Your task to perform on an android device: turn on improve location accuracy Image 0: 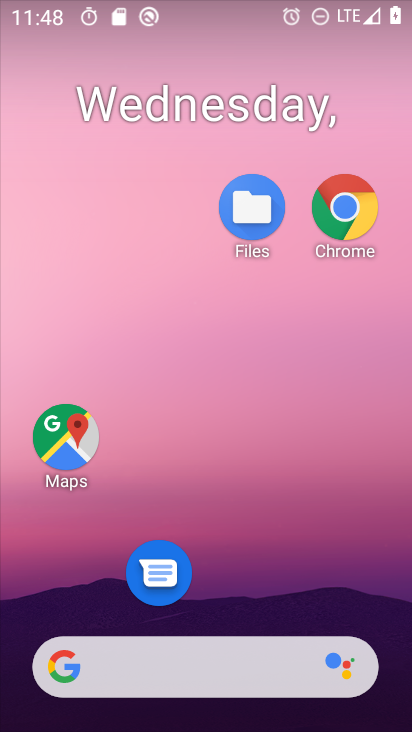
Step 0: drag from (312, 631) to (296, 122)
Your task to perform on an android device: turn on improve location accuracy Image 1: 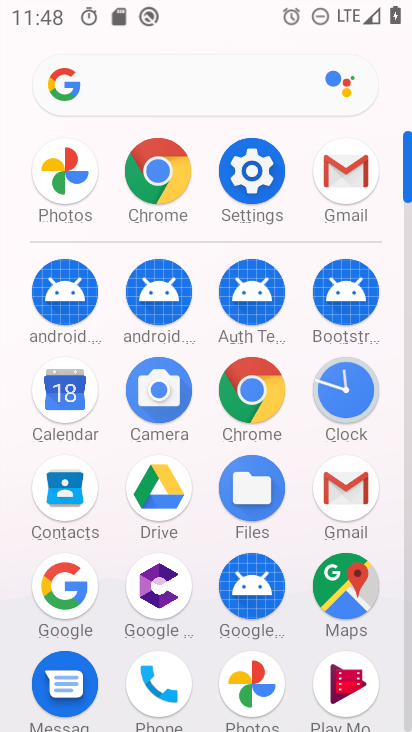
Step 1: click (249, 172)
Your task to perform on an android device: turn on improve location accuracy Image 2: 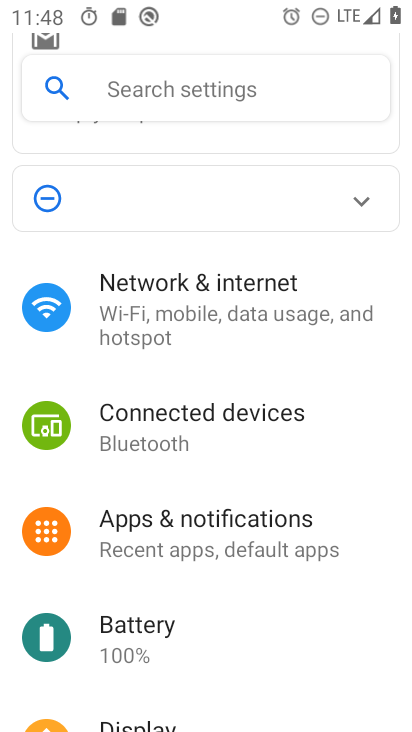
Step 2: drag from (225, 607) to (308, 0)
Your task to perform on an android device: turn on improve location accuracy Image 3: 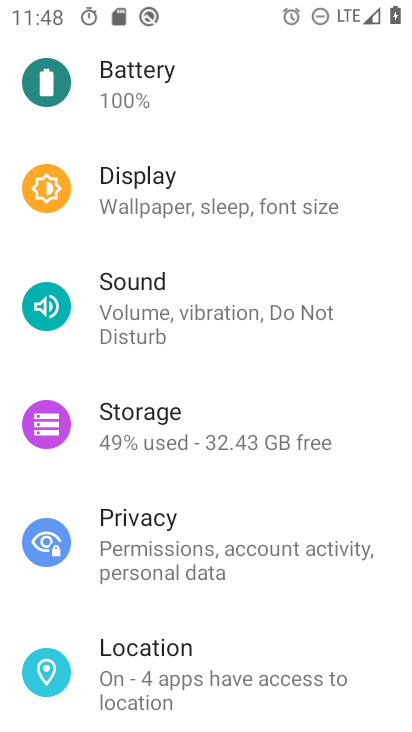
Step 3: click (191, 665)
Your task to perform on an android device: turn on improve location accuracy Image 4: 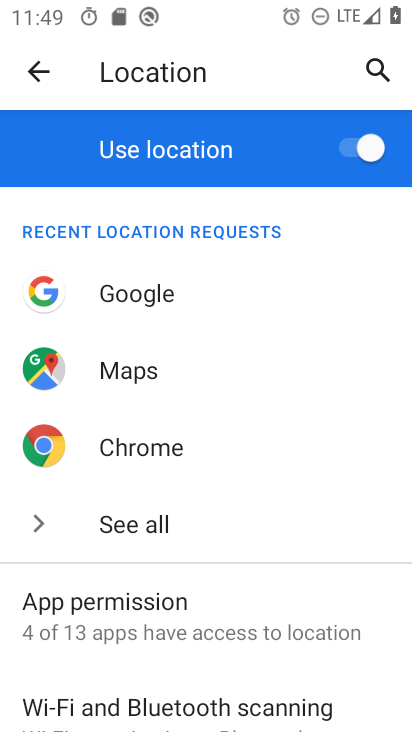
Step 4: drag from (223, 606) to (303, 228)
Your task to perform on an android device: turn on improve location accuracy Image 5: 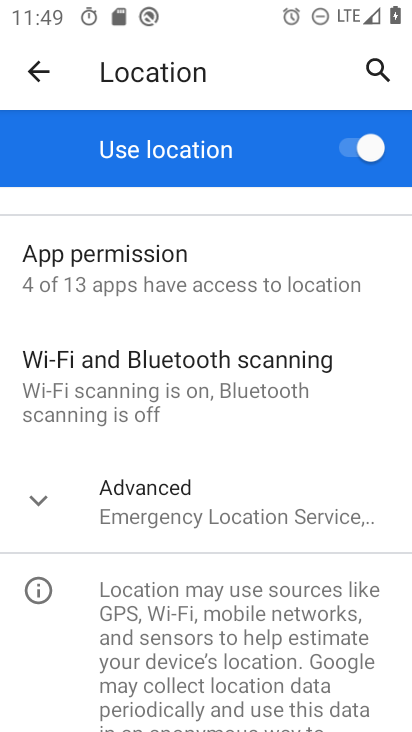
Step 5: click (250, 511)
Your task to perform on an android device: turn on improve location accuracy Image 6: 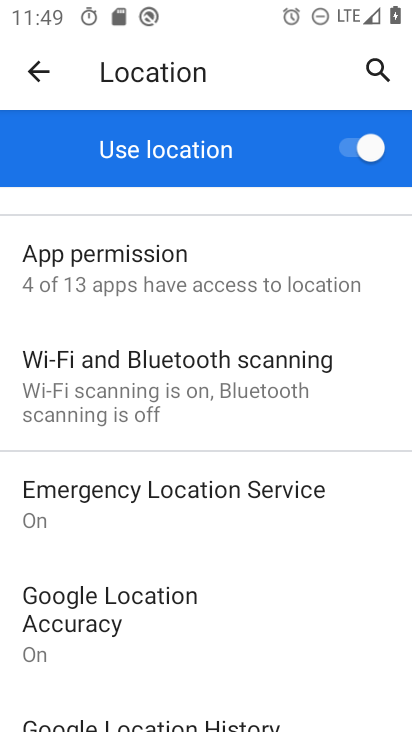
Step 6: click (193, 614)
Your task to perform on an android device: turn on improve location accuracy Image 7: 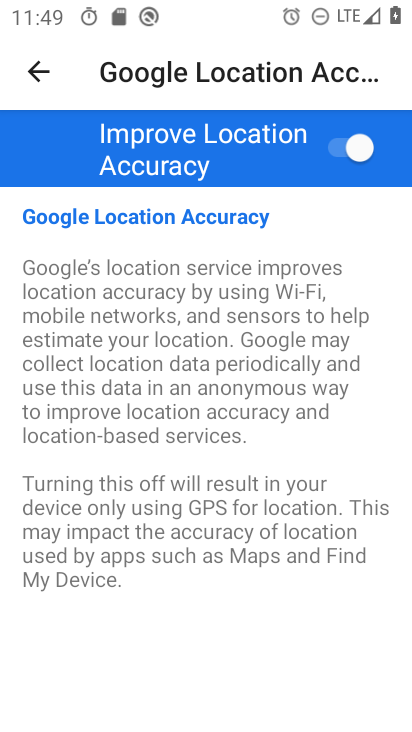
Step 7: task complete